Your task to perform on an android device: Open Google Chrome and click the shortcut for Amazon.com Image 0: 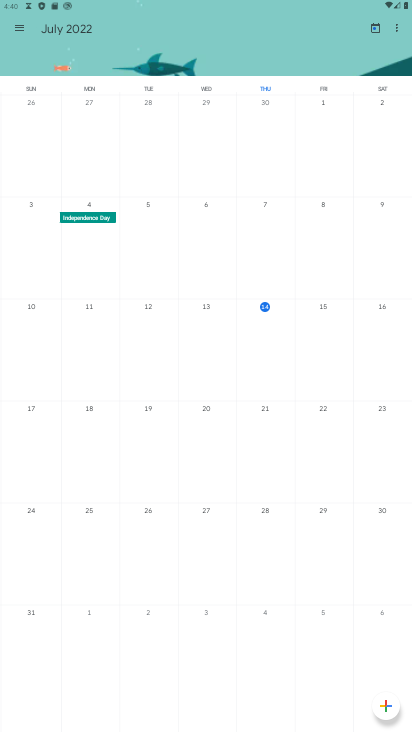
Step 0: press back button
Your task to perform on an android device: Open Google Chrome and click the shortcut for Amazon.com Image 1: 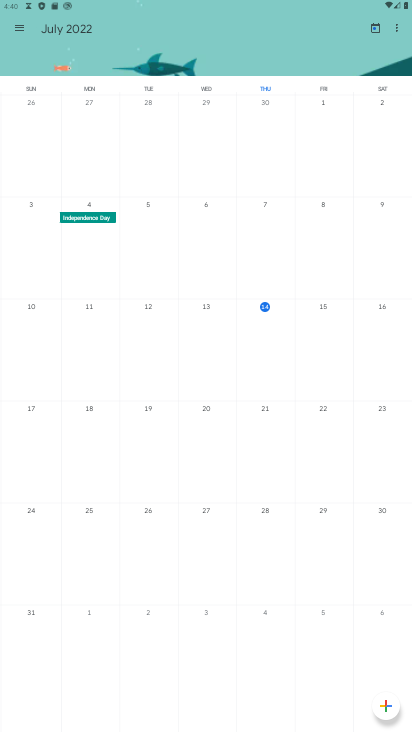
Step 1: press back button
Your task to perform on an android device: Open Google Chrome and click the shortcut for Amazon.com Image 2: 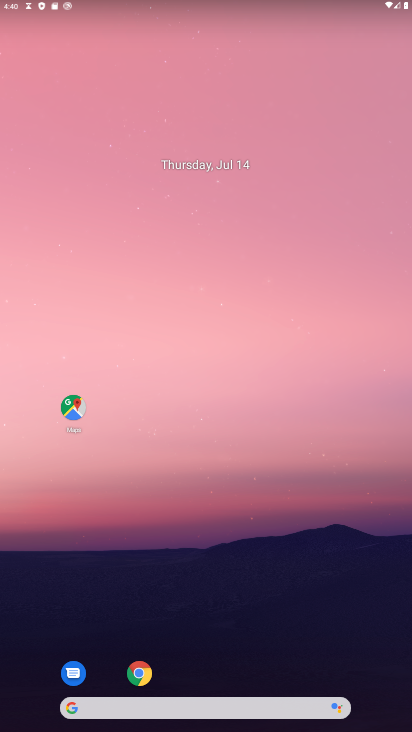
Step 2: drag from (280, 661) to (149, 42)
Your task to perform on an android device: Open Google Chrome and click the shortcut for Amazon.com Image 3: 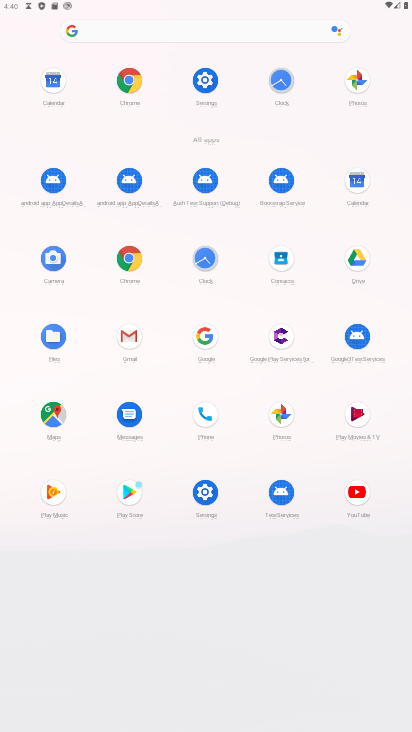
Step 3: click (126, 72)
Your task to perform on an android device: Open Google Chrome and click the shortcut for Amazon.com Image 4: 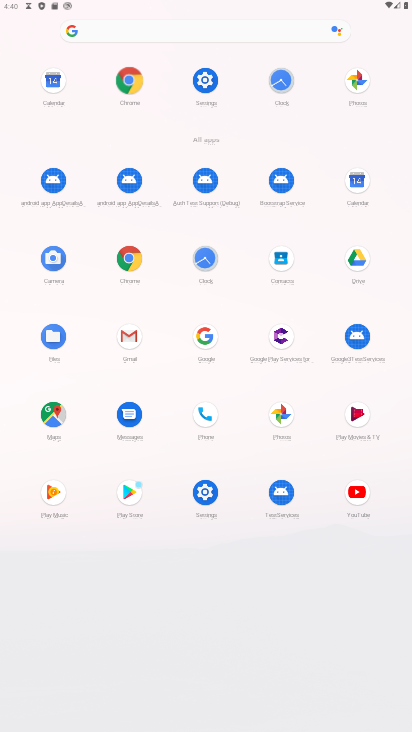
Step 4: click (134, 79)
Your task to perform on an android device: Open Google Chrome and click the shortcut for Amazon.com Image 5: 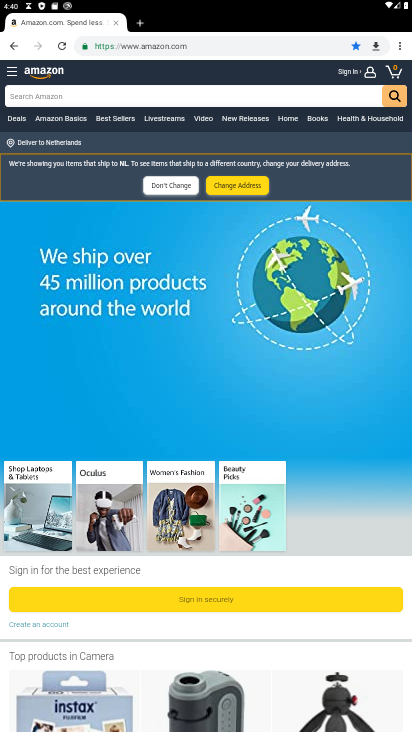
Step 5: drag from (403, 39) to (308, 47)
Your task to perform on an android device: Open Google Chrome and click the shortcut for Amazon.com Image 6: 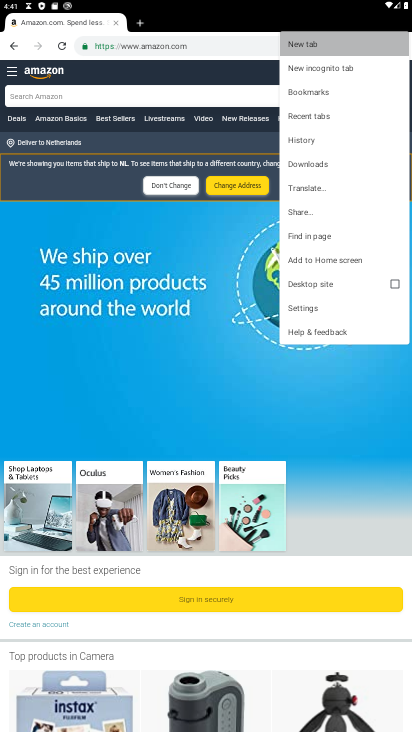
Step 6: click (308, 47)
Your task to perform on an android device: Open Google Chrome and click the shortcut for Amazon.com Image 7: 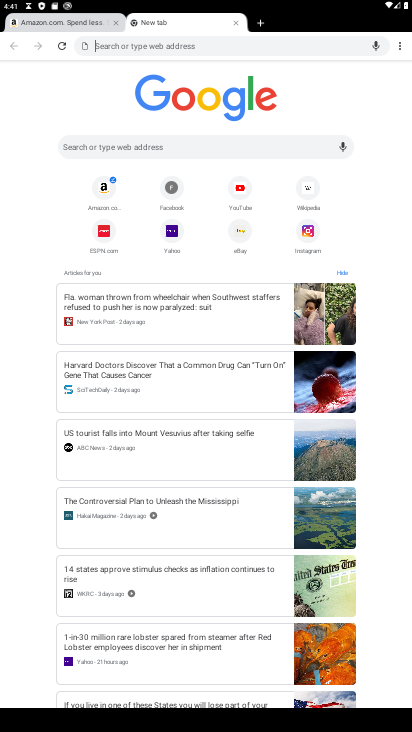
Step 7: click (103, 183)
Your task to perform on an android device: Open Google Chrome and click the shortcut for Amazon.com Image 8: 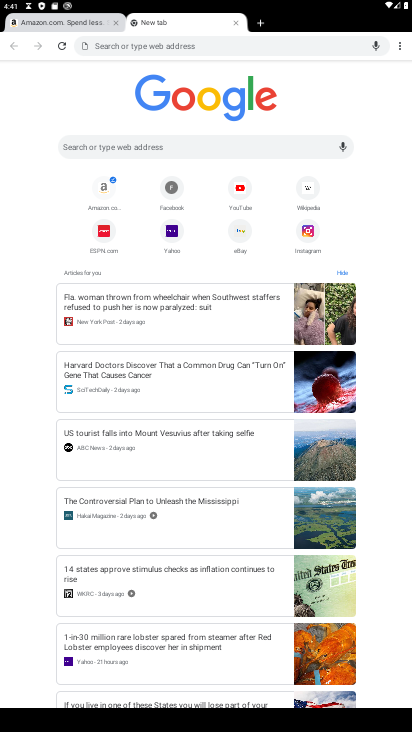
Step 8: click (103, 183)
Your task to perform on an android device: Open Google Chrome and click the shortcut for Amazon.com Image 9: 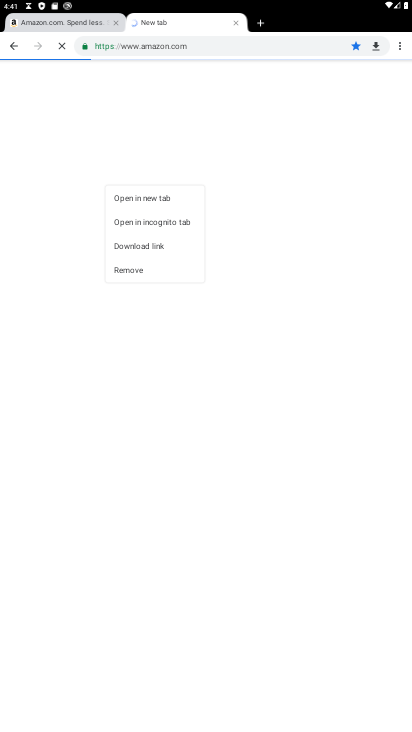
Step 9: click (102, 182)
Your task to perform on an android device: Open Google Chrome and click the shortcut for Amazon.com Image 10: 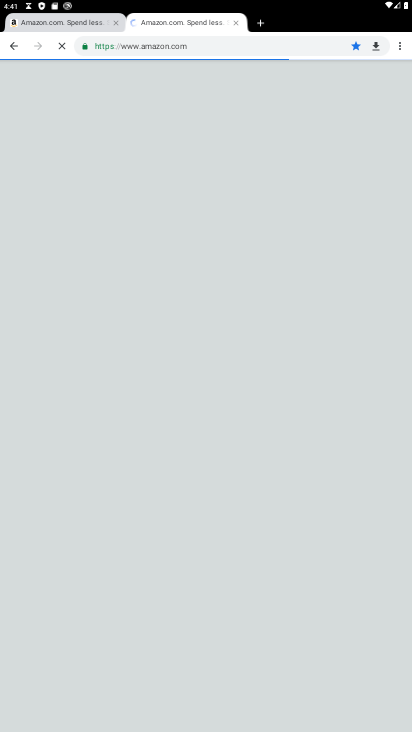
Step 10: click (102, 182)
Your task to perform on an android device: Open Google Chrome and click the shortcut for Amazon.com Image 11: 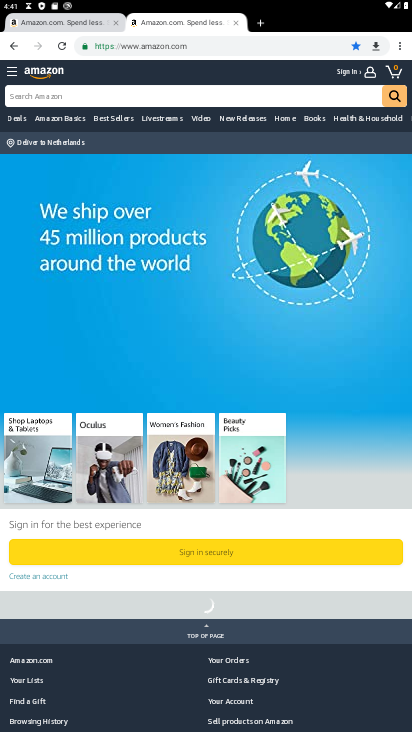
Step 11: task complete